Your task to perform on an android device: turn on data saver in the chrome app Image 0: 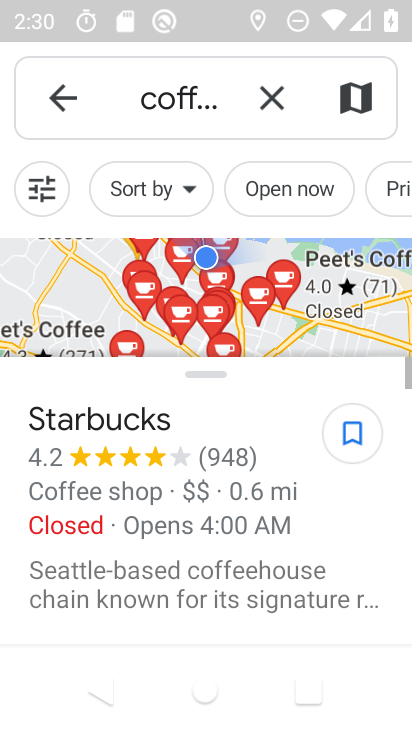
Step 0: press home button
Your task to perform on an android device: turn on data saver in the chrome app Image 1: 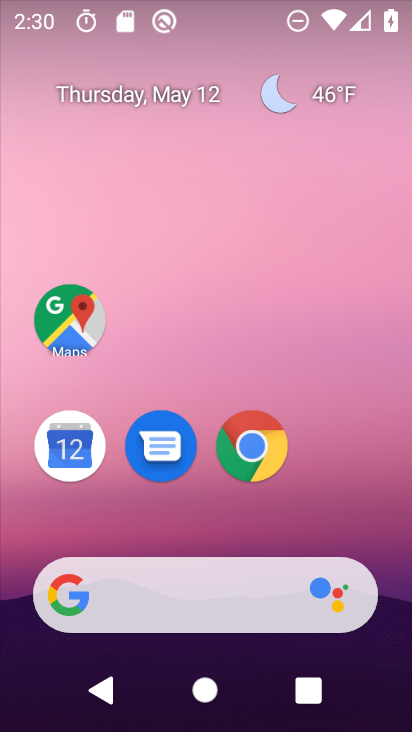
Step 1: click (275, 430)
Your task to perform on an android device: turn on data saver in the chrome app Image 2: 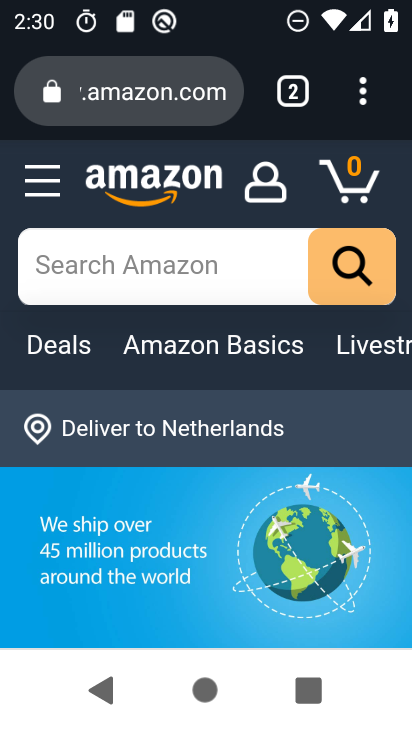
Step 2: drag from (370, 91) to (138, 461)
Your task to perform on an android device: turn on data saver in the chrome app Image 3: 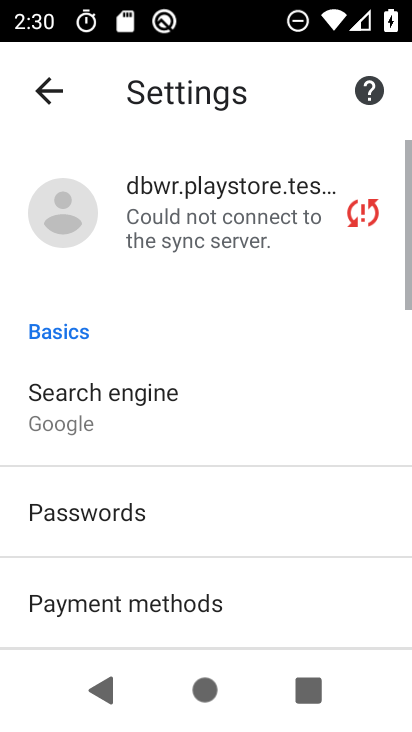
Step 3: drag from (175, 527) to (288, 206)
Your task to perform on an android device: turn on data saver in the chrome app Image 4: 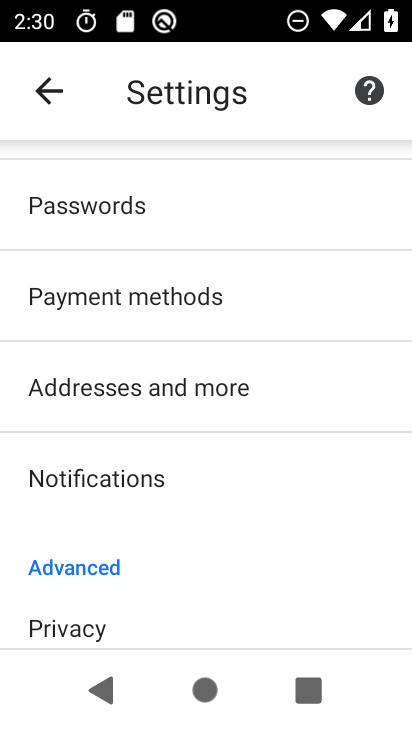
Step 4: drag from (205, 499) to (241, 295)
Your task to perform on an android device: turn on data saver in the chrome app Image 5: 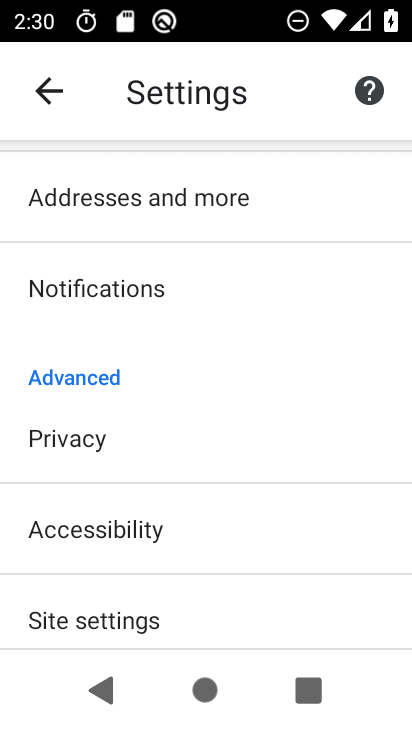
Step 5: drag from (218, 621) to (224, 432)
Your task to perform on an android device: turn on data saver in the chrome app Image 6: 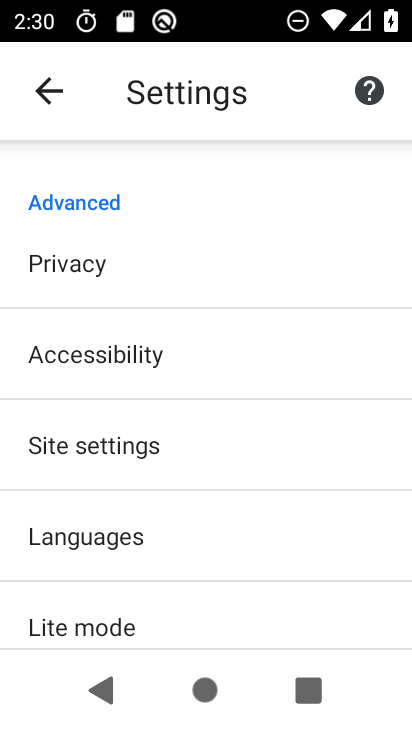
Step 6: drag from (187, 544) to (213, 309)
Your task to perform on an android device: turn on data saver in the chrome app Image 7: 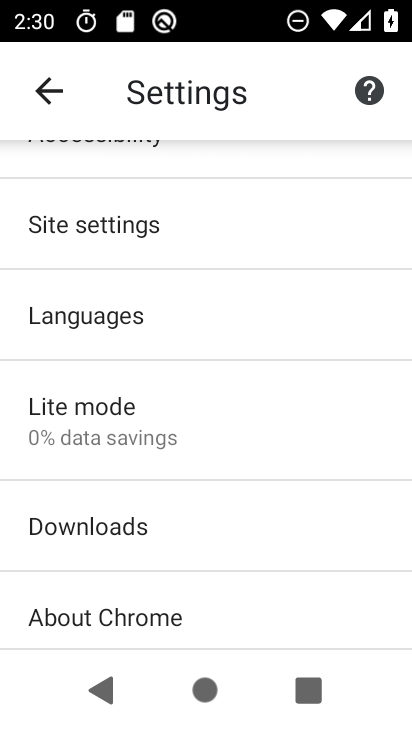
Step 7: click (184, 407)
Your task to perform on an android device: turn on data saver in the chrome app Image 8: 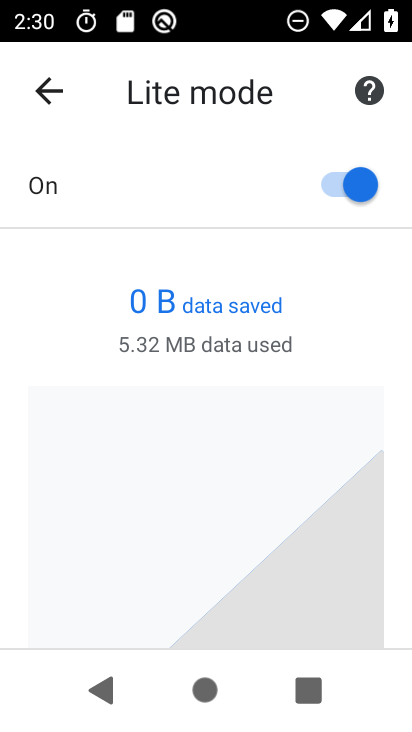
Step 8: task complete